Your task to perform on an android device: turn pop-ups on in chrome Image 0: 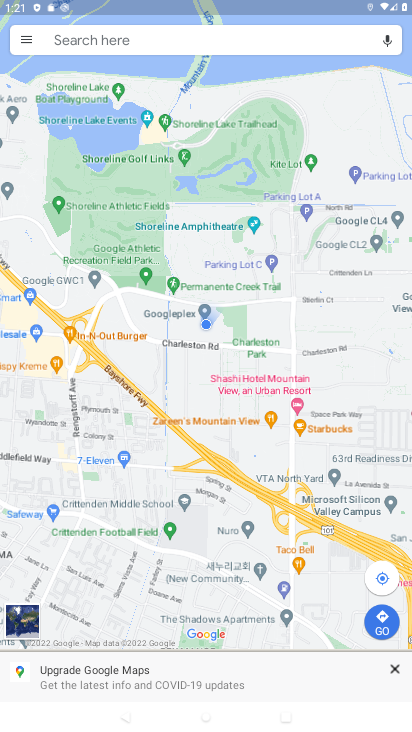
Step 0: press home button
Your task to perform on an android device: turn pop-ups on in chrome Image 1: 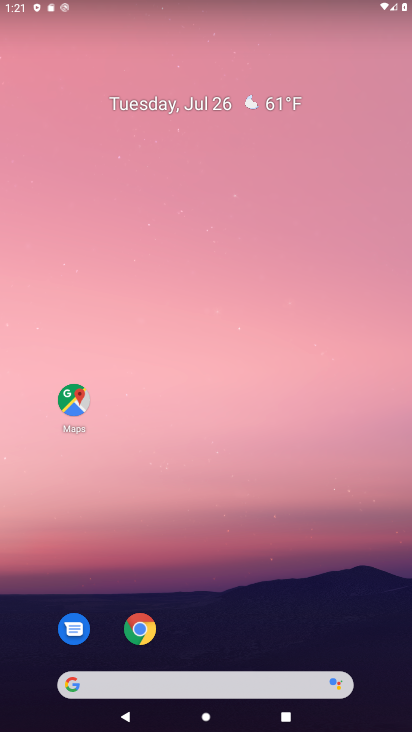
Step 1: click (140, 631)
Your task to perform on an android device: turn pop-ups on in chrome Image 2: 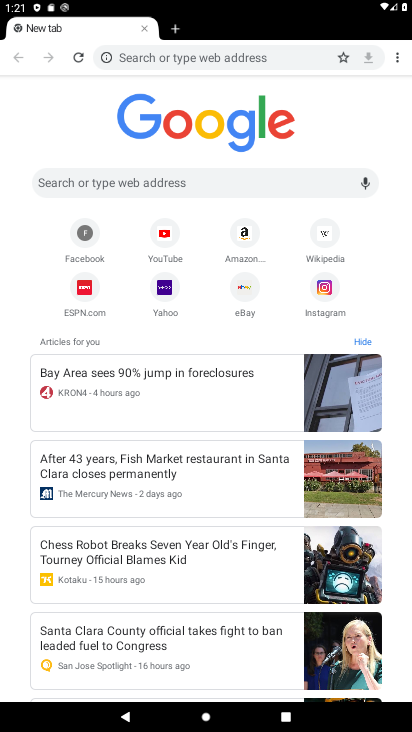
Step 2: click (191, 24)
Your task to perform on an android device: turn pop-ups on in chrome Image 3: 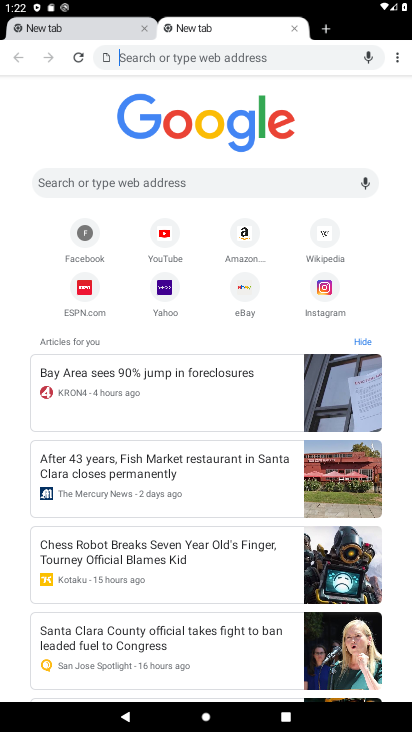
Step 3: click (406, 52)
Your task to perform on an android device: turn pop-ups on in chrome Image 4: 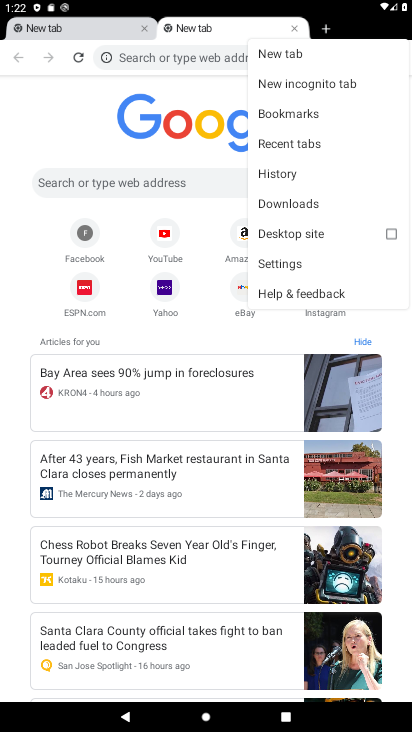
Step 4: click (334, 268)
Your task to perform on an android device: turn pop-ups on in chrome Image 5: 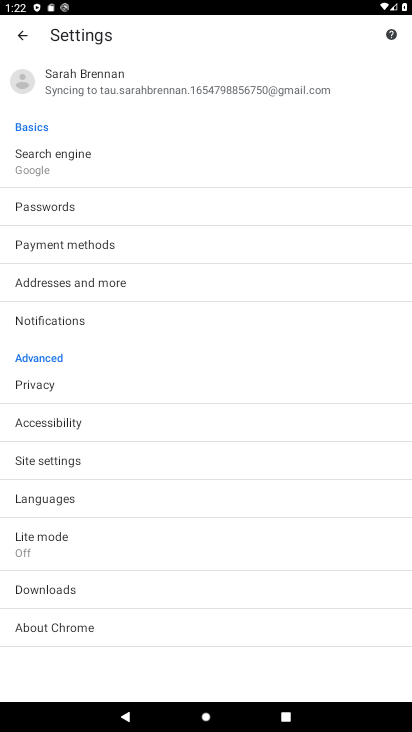
Step 5: click (73, 463)
Your task to perform on an android device: turn pop-ups on in chrome Image 6: 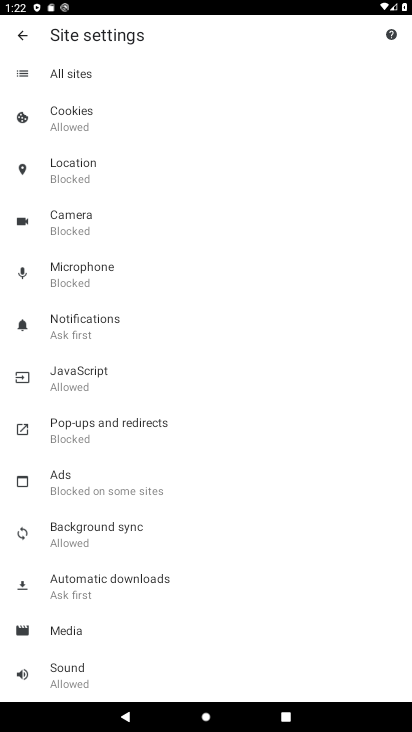
Step 6: click (112, 437)
Your task to perform on an android device: turn pop-ups on in chrome Image 7: 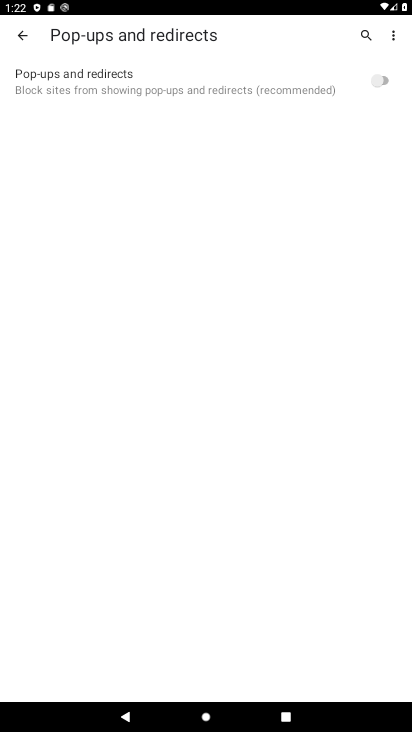
Step 7: click (370, 85)
Your task to perform on an android device: turn pop-ups on in chrome Image 8: 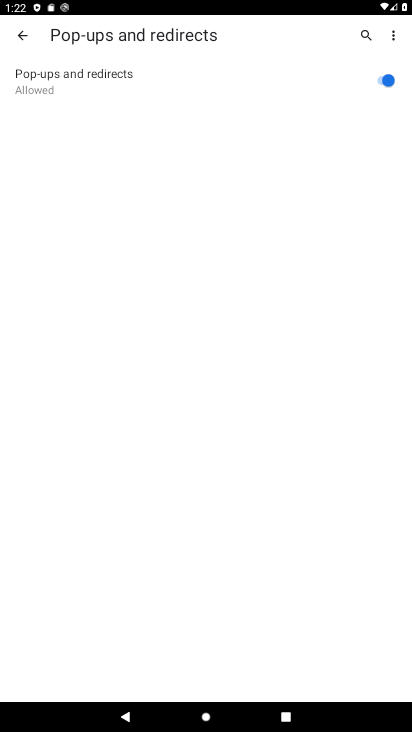
Step 8: task complete